Your task to perform on an android device: change the clock style Image 0: 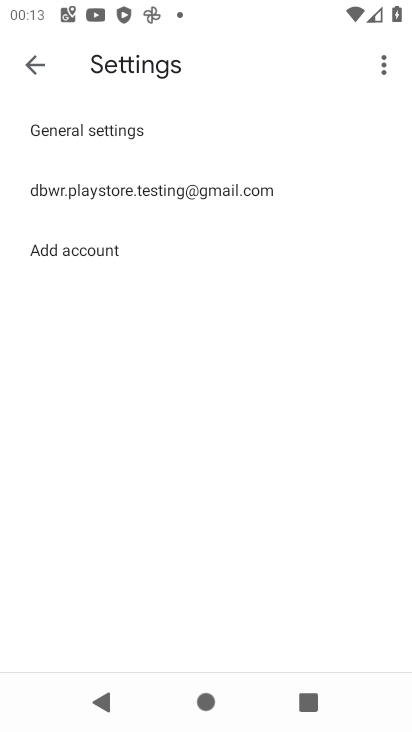
Step 0: press home button
Your task to perform on an android device: change the clock style Image 1: 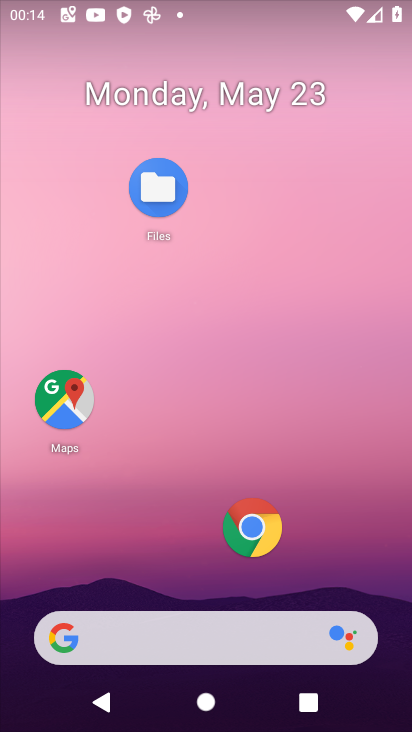
Step 1: drag from (163, 468) to (299, 70)
Your task to perform on an android device: change the clock style Image 2: 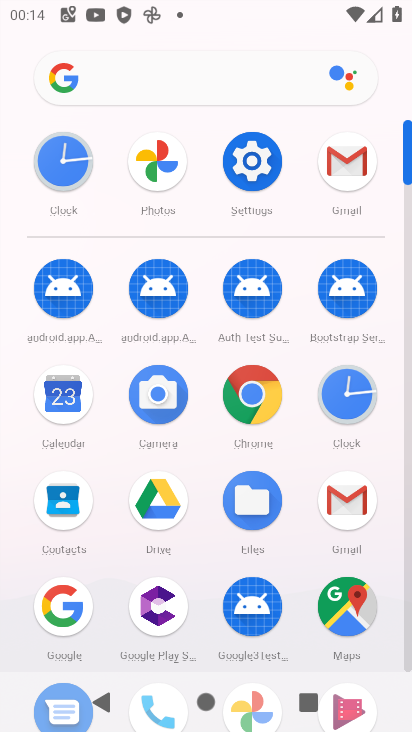
Step 2: click (50, 171)
Your task to perform on an android device: change the clock style Image 3: 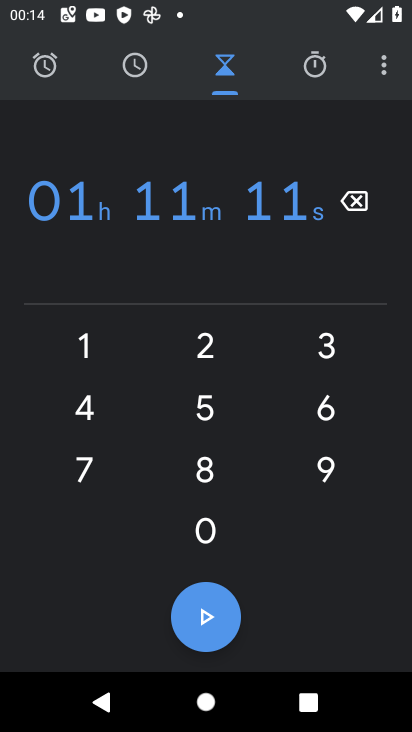
Step 3: click (381, 63)
Your task to perform on an android device: change the clock style Image 4: 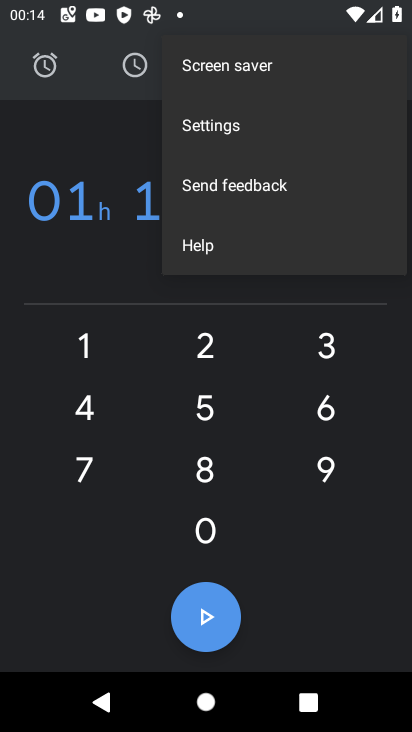
Step 4: click (227, 126)
Your task to perform on an android device: change the clock style Image 5: 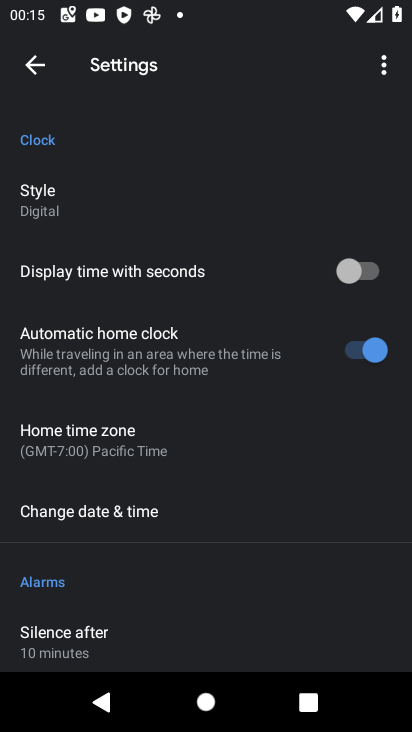
Step 5: click (44, 185)
Your task to perform on an android device: change the clock style Image 6: 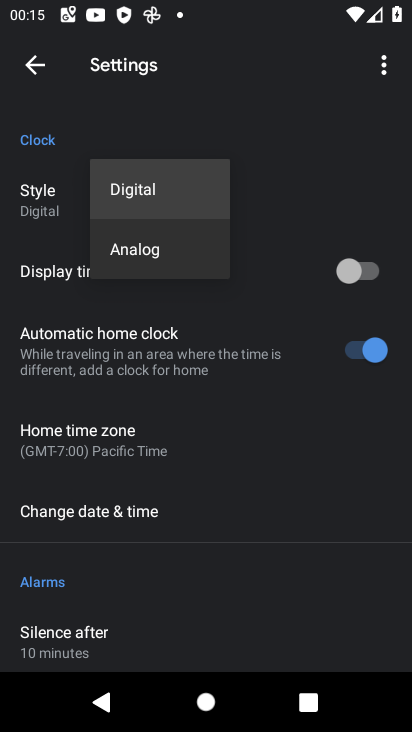
Step 6: click (140, 250)
Your task to perform on an android device: change the clock style Image 7: 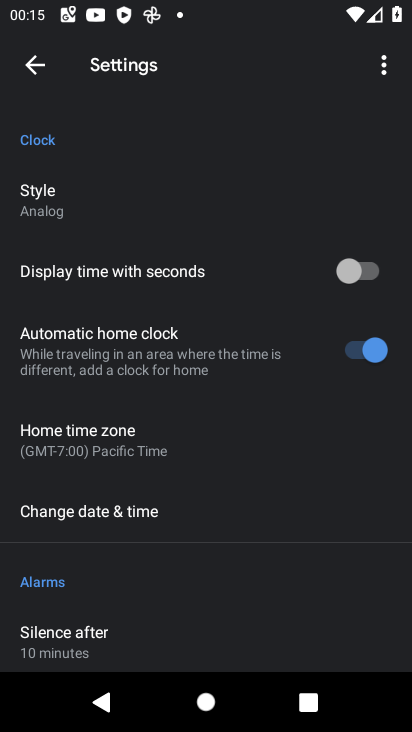
Step 7: task complete